Your task to perform on an android device: What's the weather going to be this weekend? Image 0: 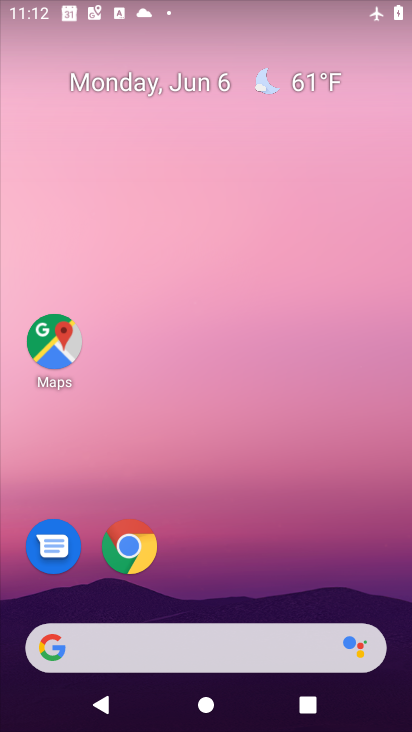
Step 0: click (296, 83)
Your task to perform on an android device: What's the weather going to be this weekend? Image 1: 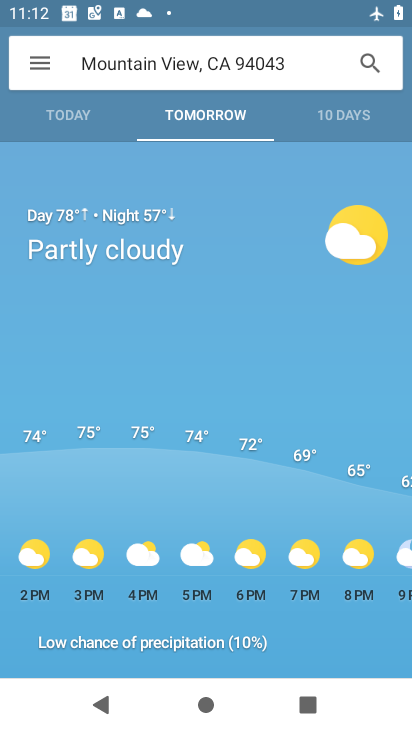
Step 1: click (353, 123)
Your task to perform on an android device: What's the weather going to be this weekend? Image 2: 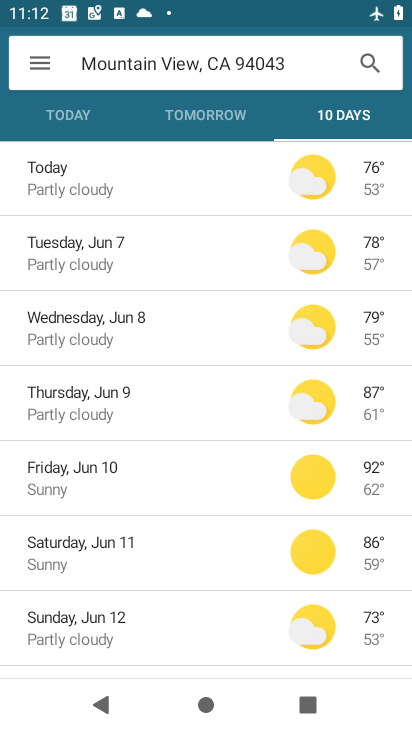
Step 2: task complete